Your task to perform on an android device: What's the weather going to be tomorrow? Image 0: 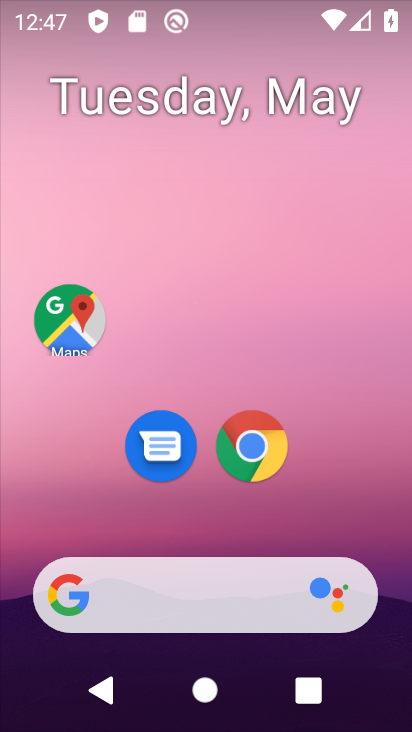
Step 0: click (252, 444)
Your task to perform on an android device: What's the weather going to be tomorrow? Image 1: 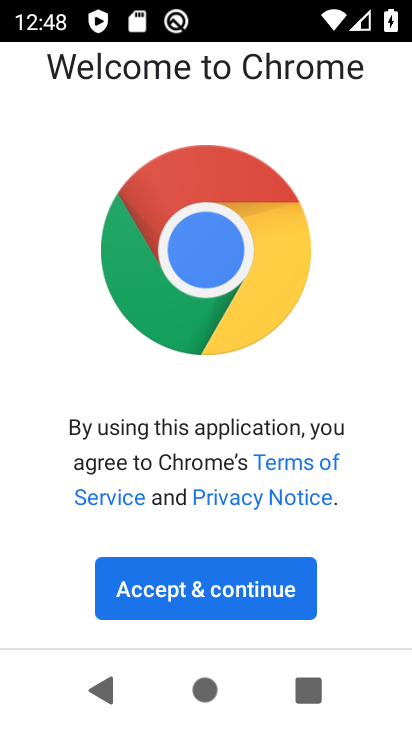
Step 1: drag from (219, 592) to (177, 592)
Your task to perform on an android device: What's the weather going to be tomorrow? Image 2: 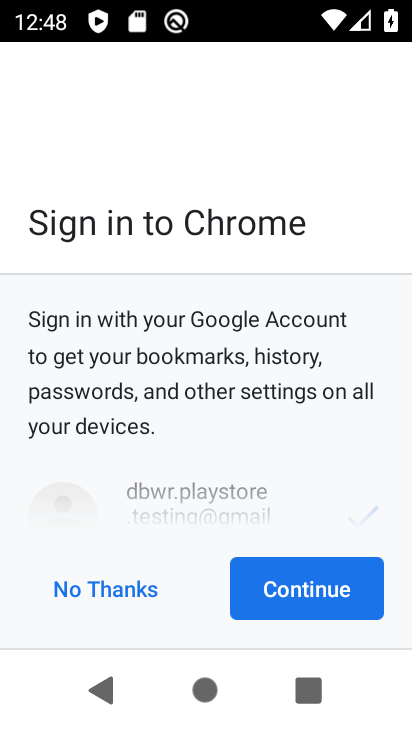
Step 2: click (343, 597)
Your task to perform on an android device: What's the weather going to be tomorrow? Image 3: 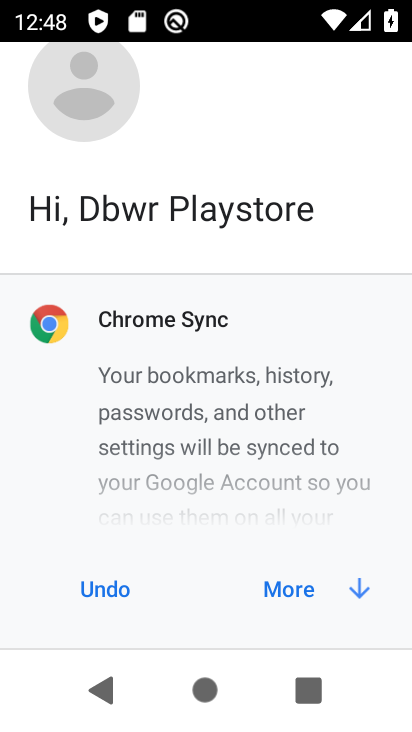
Step 3: click (298, 592)
Your task to perform on an android device: What's the weather going to be tomorrow? Image 4: 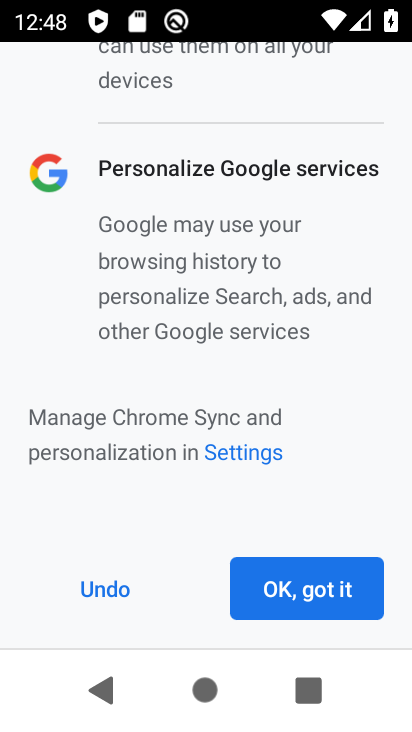
Step 4: click (334, 600)
Your task to perform on an android device: What's the weather going to be tomorrow? Image 5: 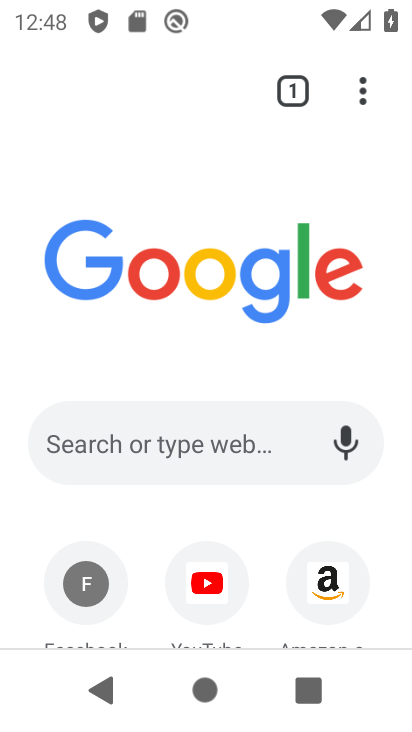
Step 5: click (193, 438)
Your task to perform on an android device: What's the weather going to be tomorrow? Image 6: 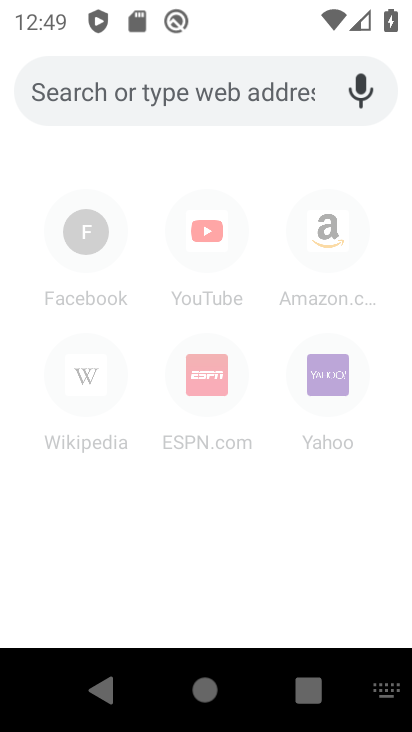
Step 6: type "What's the weather going to be tomorrow?"
Your task to perform on an android device: What's the weather going to be tomorrow? Image 7: 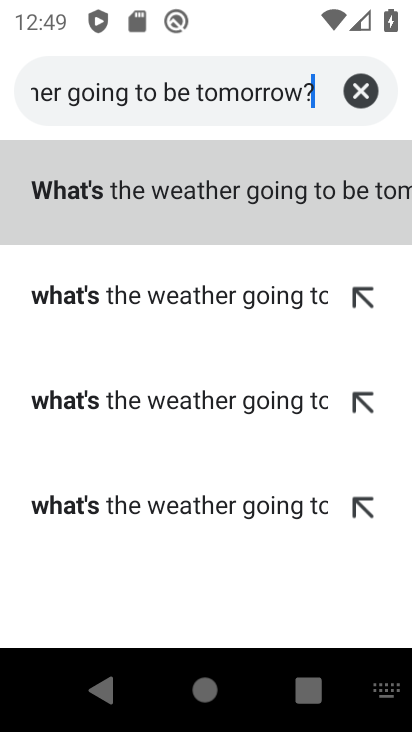
Step 7: click (196, 181)
Your task to perform on an android device: What's the weather going to be tomorrow? Image 8: 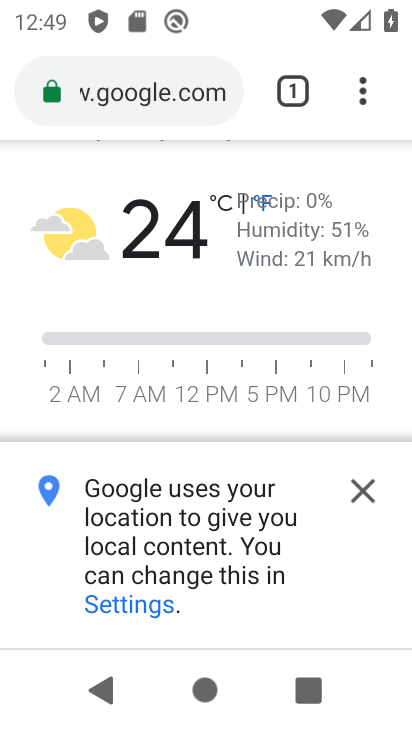
Step 8: task complete